Your task to perform on an android device: move an email to a new category in the gmail app Image 0: 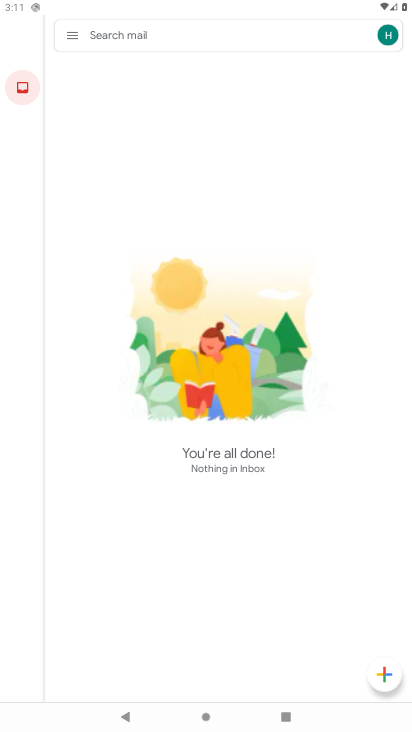
Step 0: press home button
Your task to perform on an android device: move an email to a new category in the gmail app Image 1: 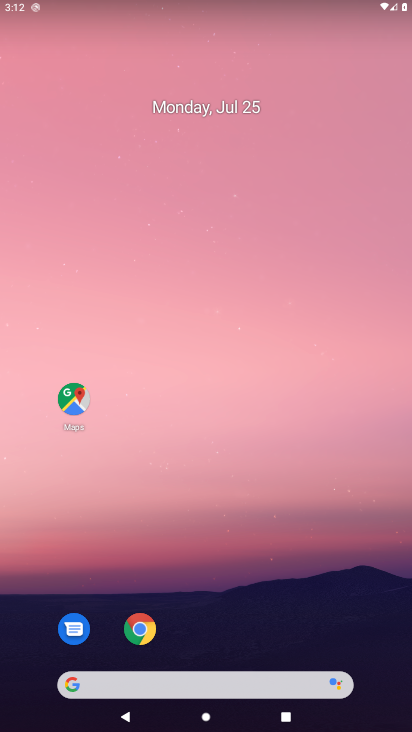
Step 1: drag from (13, 681) to (260, 124)
Your task to perform on an android device: move an email to a new category in the gmail app Image 2: 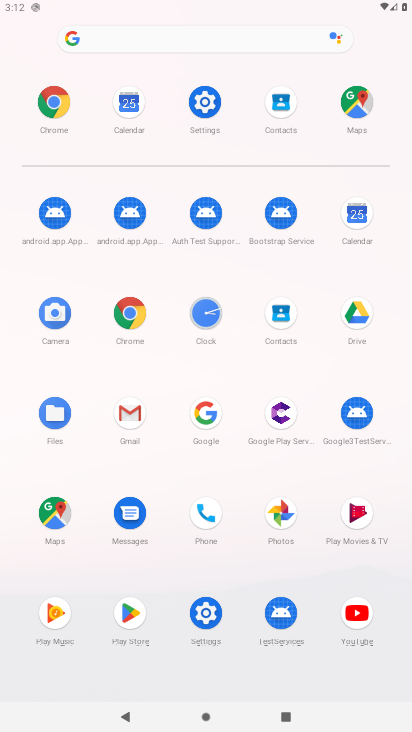
Step 2: click (122, 418)
Your task to perform on an android device: move an email to a new category in the gmail app Image 3: 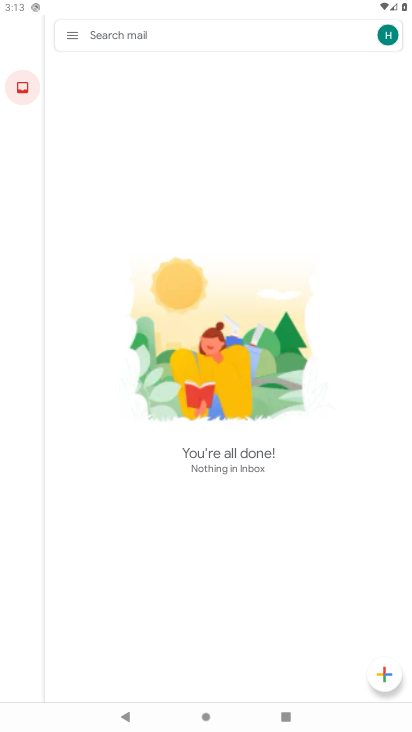
Step 3: task complete